Your task to perform on an android device: open app "Microsoft Authenticator" Image 0: 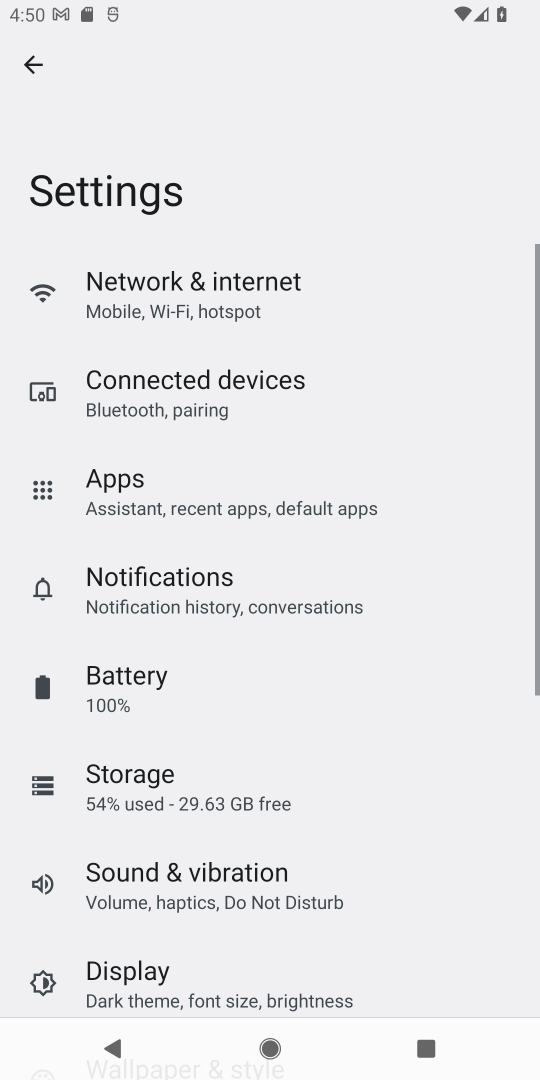
Step 0: press home button
Your task to perform on an android device: open app "Microsoft Authenticator" Image 1: 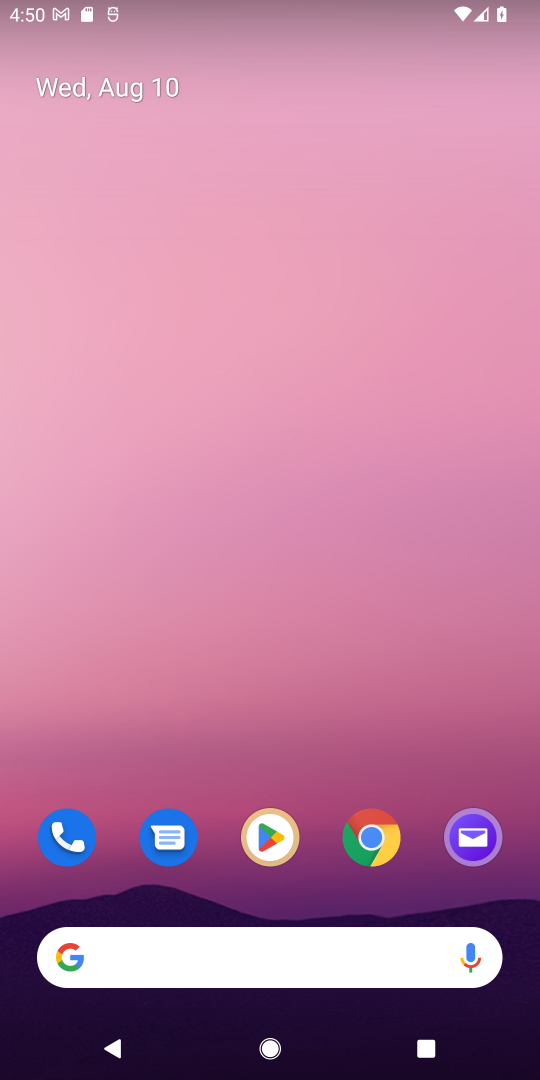
Step 1: click (266, 834)
Your task to perform on an android device: open app "Microsoft Authenticator" Image 2: 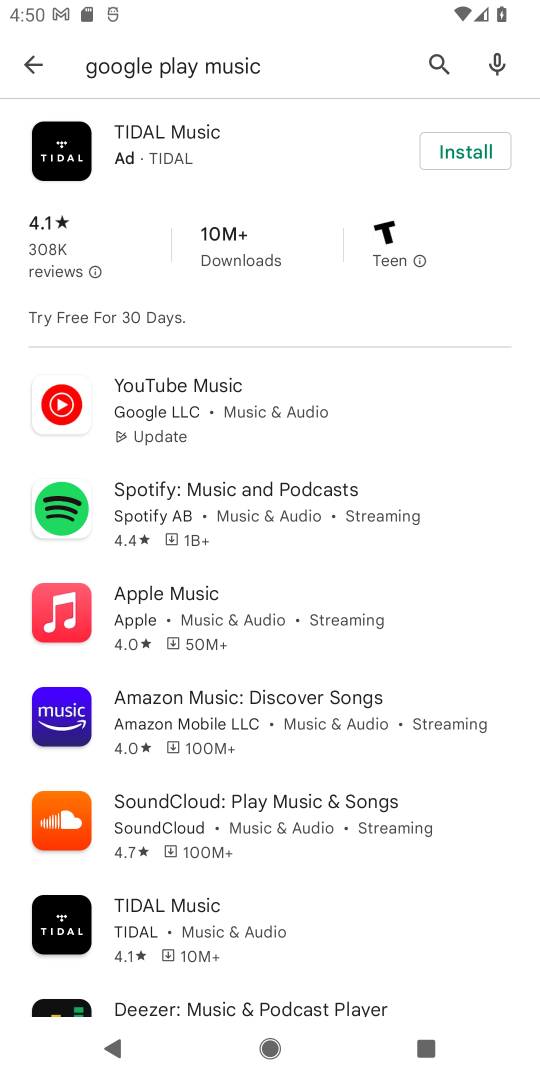
Step 2: click (441, 59)
Your task to perform on an android device: open app "Microsoft Authenticator" Image 3: 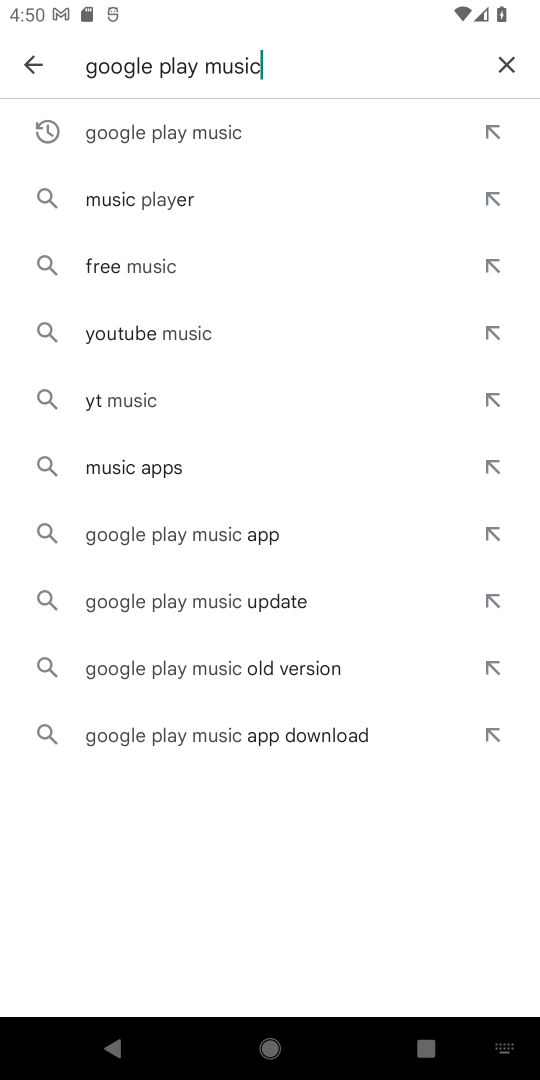
Step 3: click (514, 56)
Your task to perform on an android device: open app "Microsoft Authenticator" Image 4: 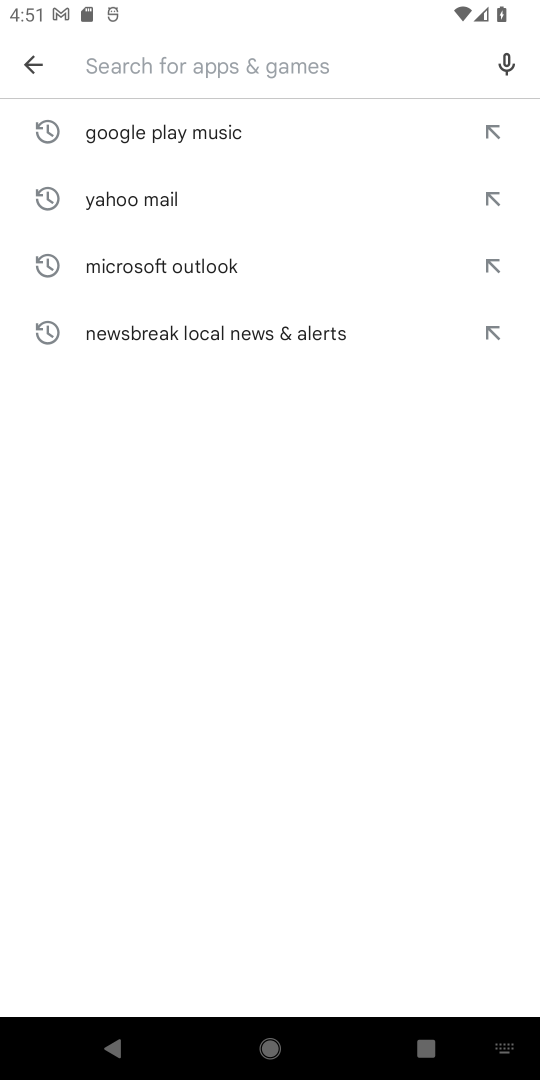
Step 4: type "Microsoft Authenticator"
Your task to perform on an android device: open app "Microsoft Authenticator" Image 5: 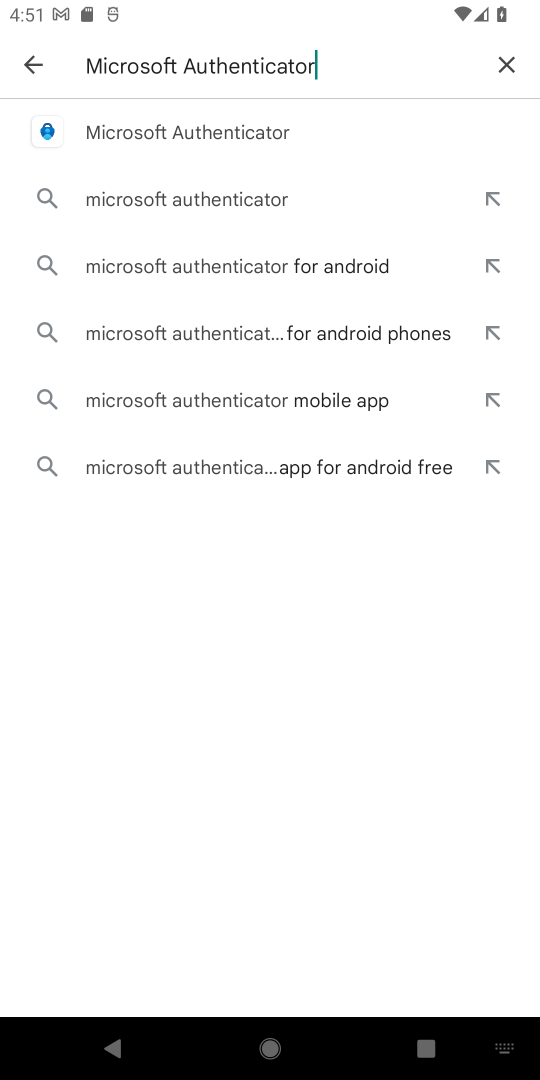
Step 5: click (231, 124)
Your task to perform on an android device: open app "Microsoft Authenticator" Image 6: 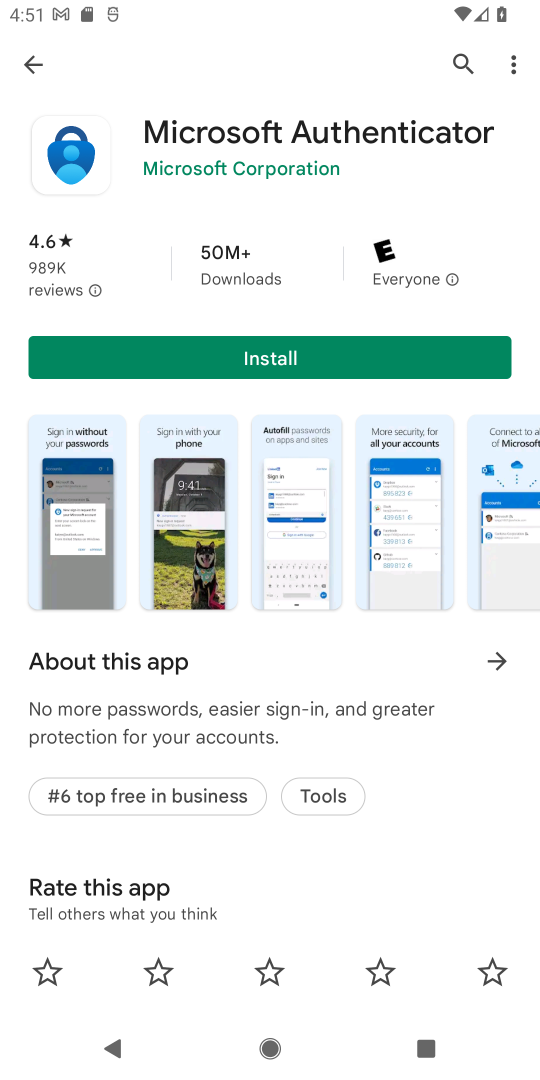
Step 6: task complete